Your task to perform on an android device: open app "Roku - Official Remote Control" (install if not already installed) Image 0: 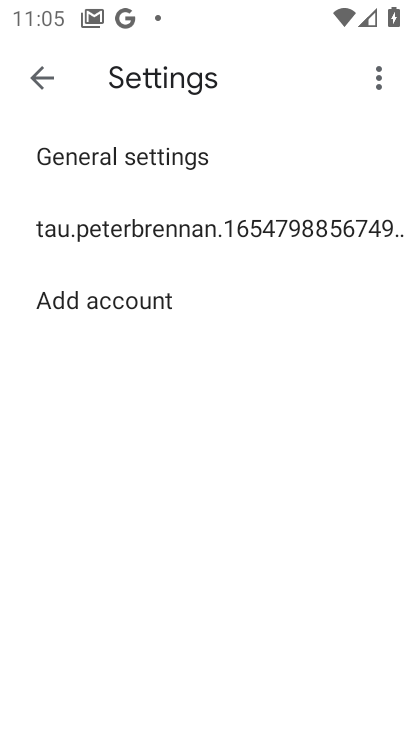
Step 0: press back button
Your task to perform on an android device: open app "Roku - Official Remote Control" (install if not already installed) Image 1: 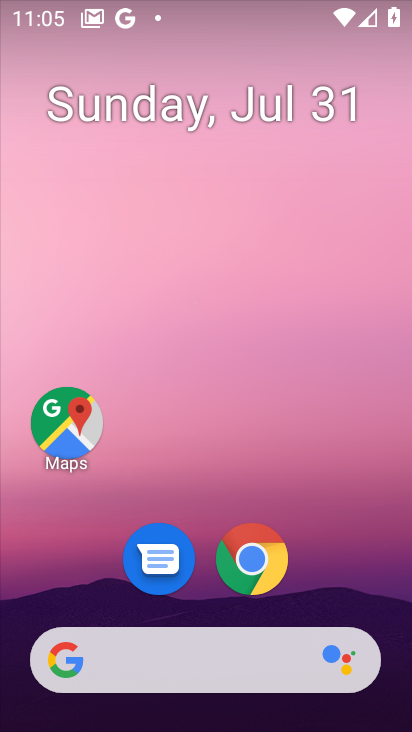
Step 1: drag from (81, 571) to (167, 91)
Your task to perform on an android device: open app "Roku - Official Remote Control" (install if not already installed) Image 2: 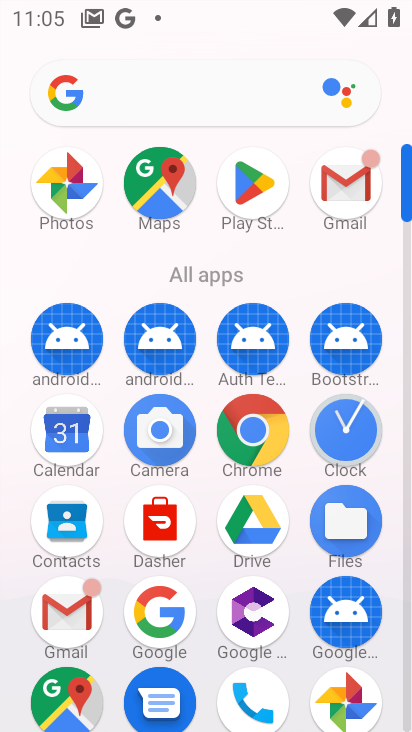
Step 2: click (262, 181)
Your task to perform on an android device: open app "Roku - Official Remote Control" (install if not already installed) Image 3: 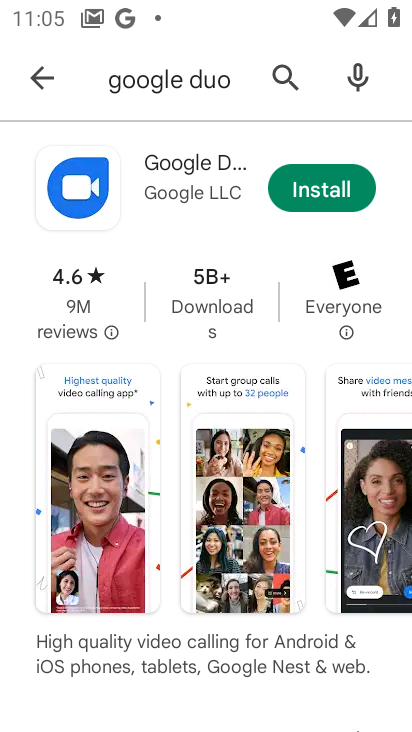
Step 3: click (287, 60)
Your task to perform on an android device: open app "Roku - Official Remote Control" (install if not already installed) Image 4: 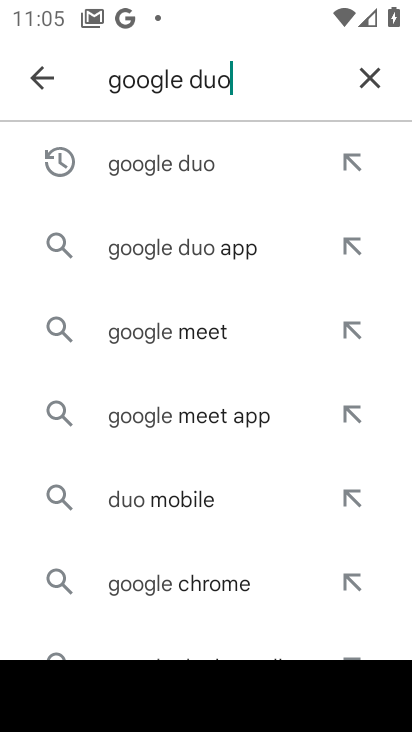
Step 4: click (395, 66)
Your task to perform on an android device: open app "Roku - Official Remote Control" (install if not already installed) Image 5: 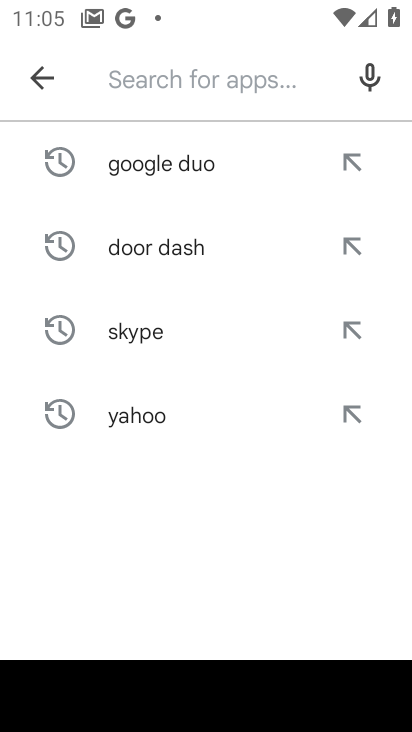
Step 5: click (159, 85)
Your task to perform on an android device: open app "Roku - Official Remote Control" (install if not already installed) Image 6: 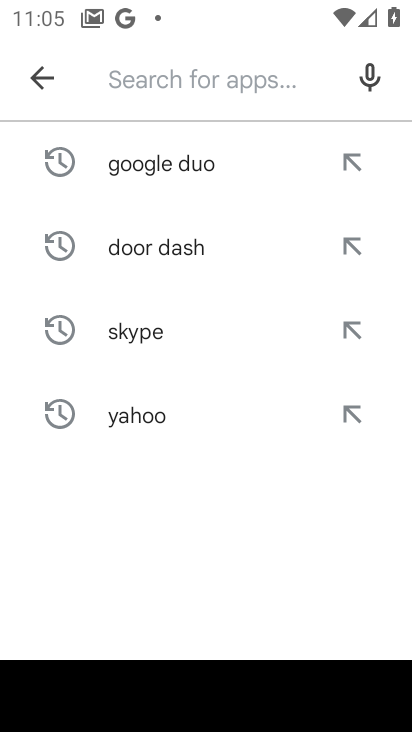
Step 6: type "roku"
Your task to perform on an android device: open app "Roku - Official Remote Control" (install if not already installed) Image 7: 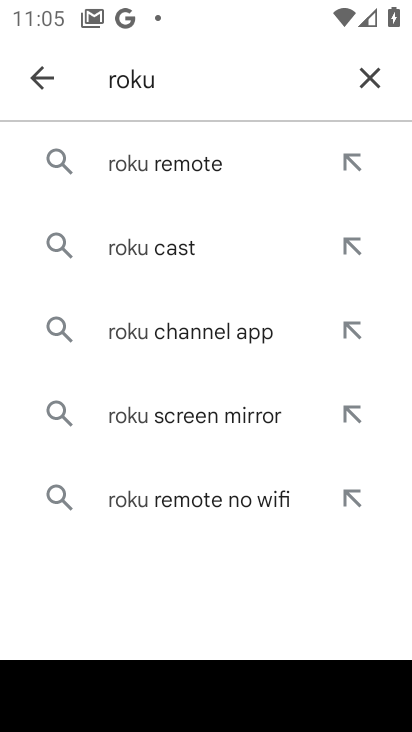
Step 7: click (174, 169)
Your task to perform on an android device: open app "Roku - Official Remote Control" (install if not already installed) Image 8: 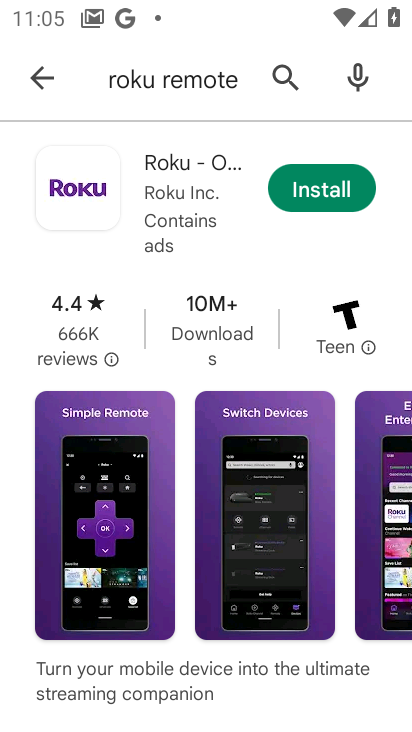
Step 8: click (315, 194)
Your task to perform on an android device: open app "Roku - Official Remote Control" (install if not already installed) Image 9: 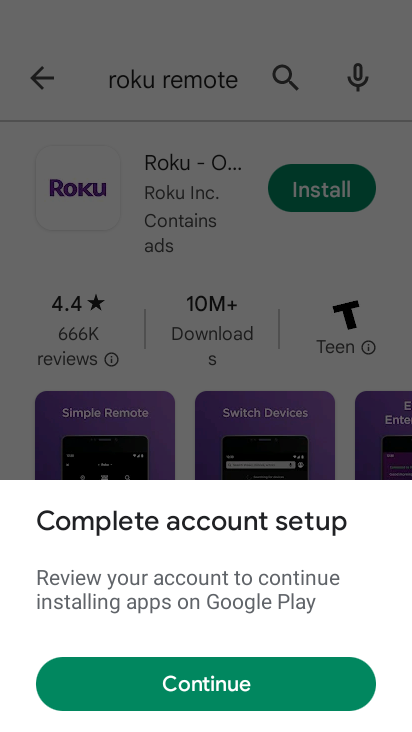
Step 9: click (193, 689)
Your task to perform on an android device: open app "Roku - Official Remote Control" (install if not already installed) Image 10: 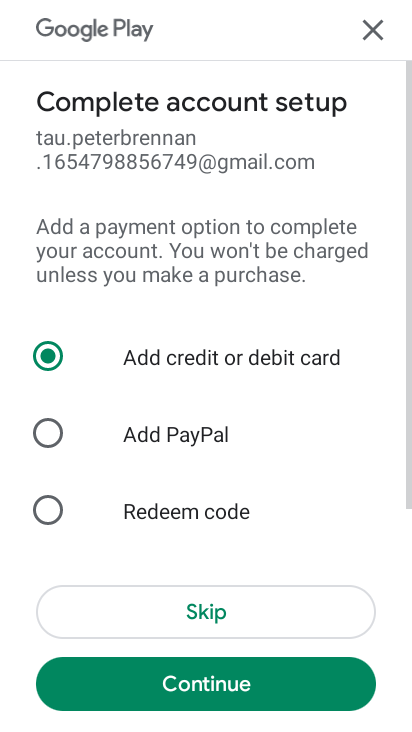
Step 10: click (153, 617)
Your task to perform on an android device: open app "Roku - Official Remote Control" (install if not already installed) Image 11: 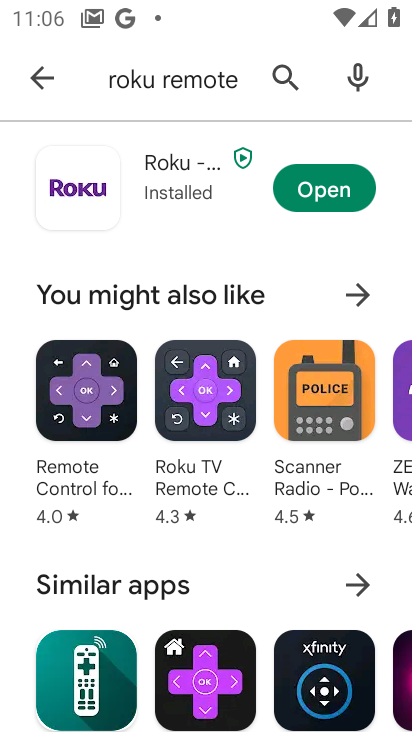
Step 11: click (321, 190)
Your task to perform on an android device: open app "Roku - Official Remote Control" (install if not already installed) Image 12: 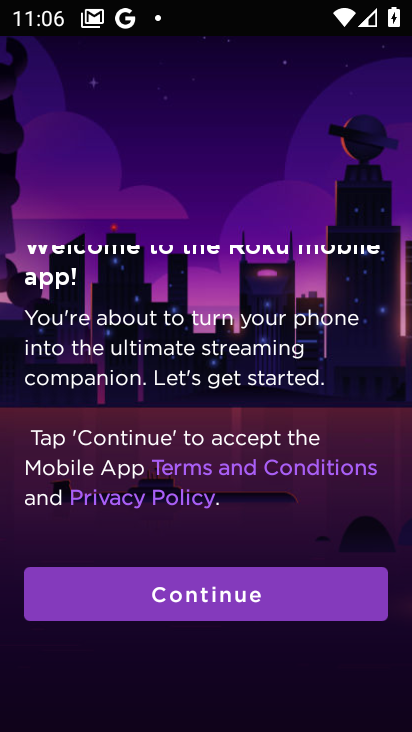
Step 12: task complete